Your task to perform on an android device: Show the shopping cart on walmart. Search for macbook pro 13 inch on walmart, select the first entry, and add it to the cart. Image 0: 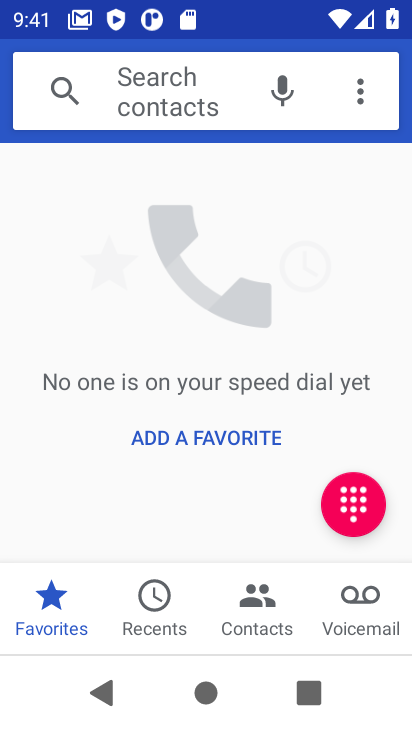
Step 0: press home button
Your task to perform on an android device: Show the shopping cart on walmart. Search for macbook pro 13 inch on walmart, select the first entry, and add it to the cart. Image 1: 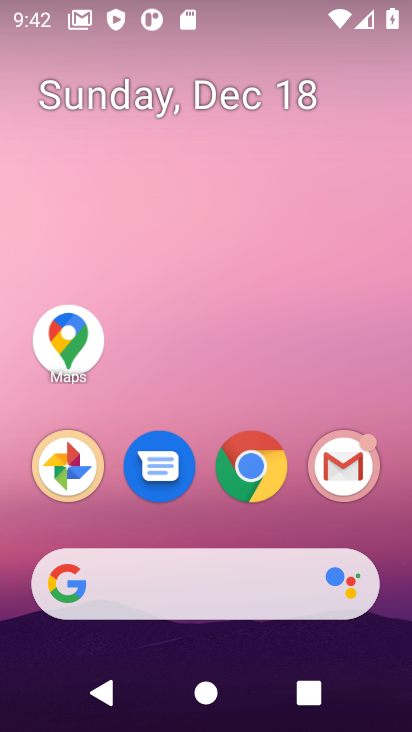
Step 1: click (240, 469)
Your task to perform on an android device: Show the shopping cart on walmart. Search for macbook pro 13 inch on walmart, select the first entry, and add it to the cart. Image 2: 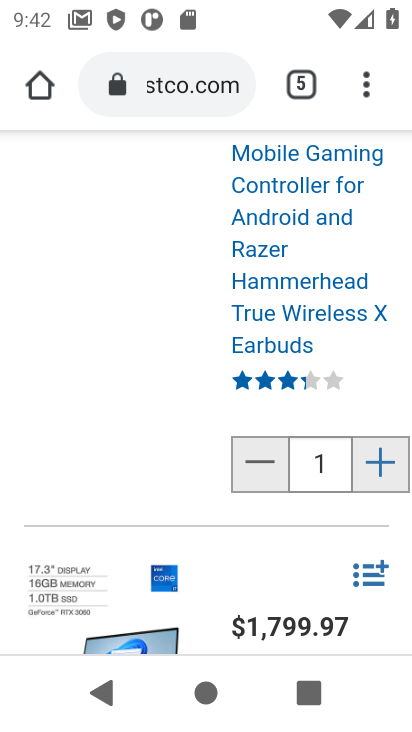
Step 2: click (187, 87)
Your task to perform on an android device: Show the shopping cart on walmart. Search for macbook pro 13 inch on walmart, select the first entry, and add it to the cart. Image 3: 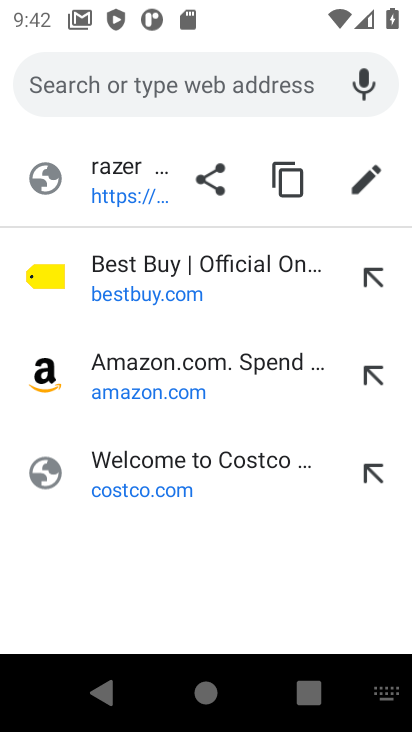
Step 3: type "W"
Your task to perform on an android device: Show the shopping cart on walmart. Search for macbook pro 13 inch on walmart, select the first entry, and add it to the cart. Image 4: 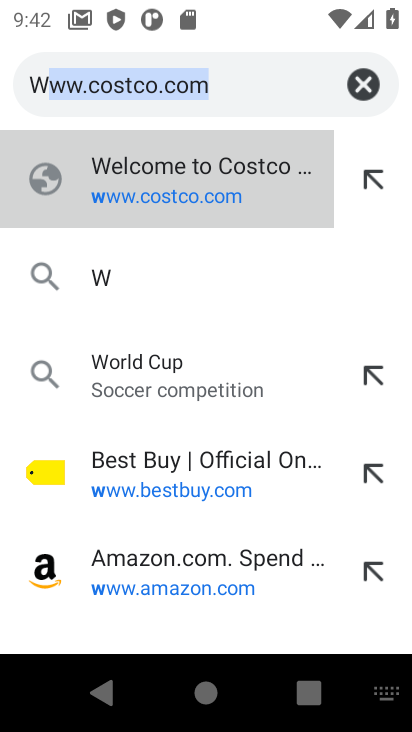
Step 4: type "WALMART"
Your task to perform on an android device: Show the shopping cart on walmart. Search for macbook pro 13 inch on walmart, select the first entry, and add it to the cart. Image 5: 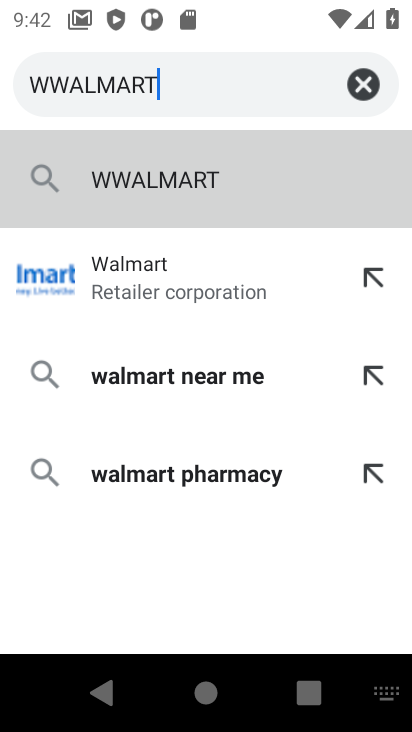
Step 5: click (154, 265)
Your task to perform on an android device: Show the shopping cart on walmart. Search for macbook pro 13 inch on walmart, select the first entry, and add it to the cart. Image 6: 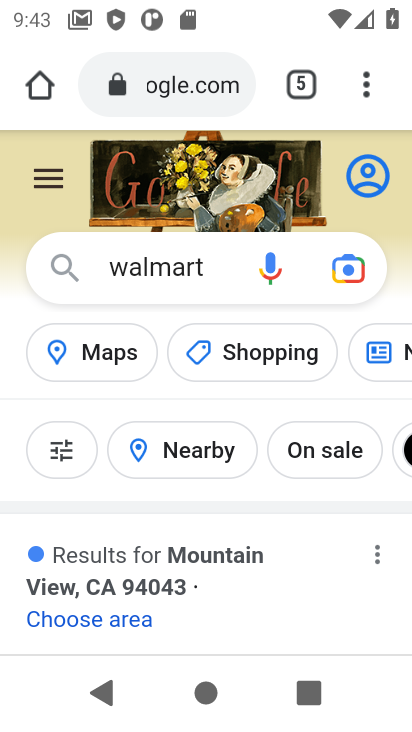
Step 6: drag from (232, 584) to (229, 149)
Your task to perform on an android device: Show the shopping cart on walmart. Search for macbook pro 13 inch on walmart, select the first entry, and add it to the cart. Image 7: 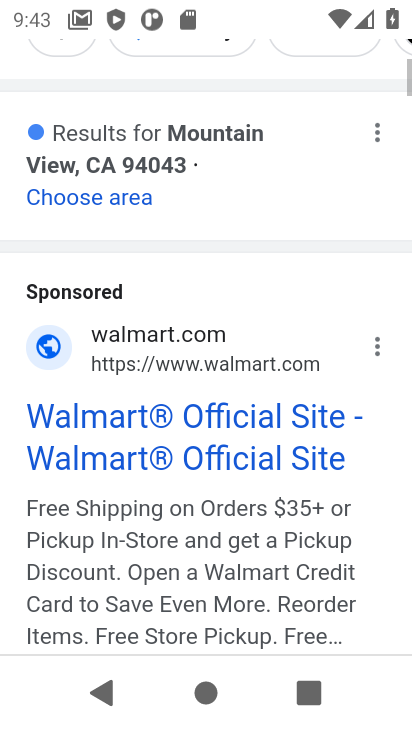
Step 7: click (203, 443)
Your task to perform on an android device: Show the shopping cart on walmart. Search for macbook pro 13 inch on walmart, select the first entry, and add it to the cart. Image 8: 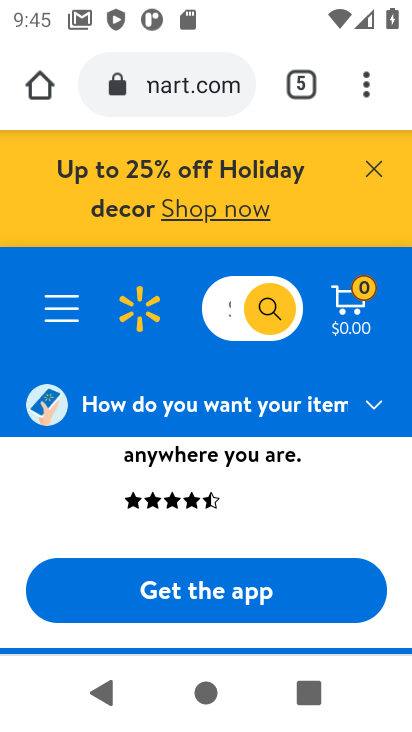
Step 8: task complete